Your task to perform on an android device: Open calendar and show me the second week of next month Image 0: 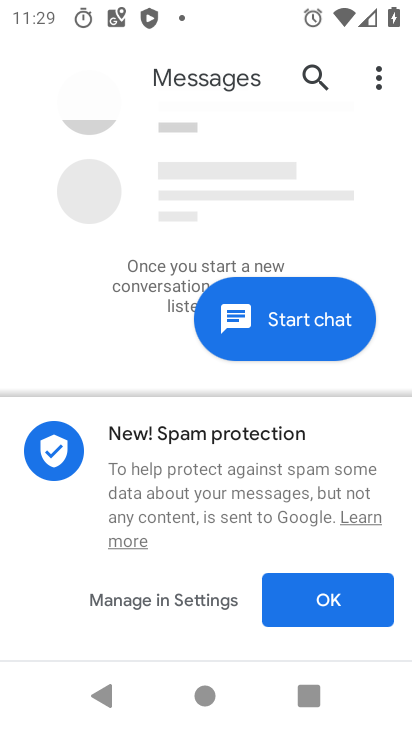
Step 0: press home button
Your task to perform on an android device: Open calendar and show me the second week of next month Image 1: 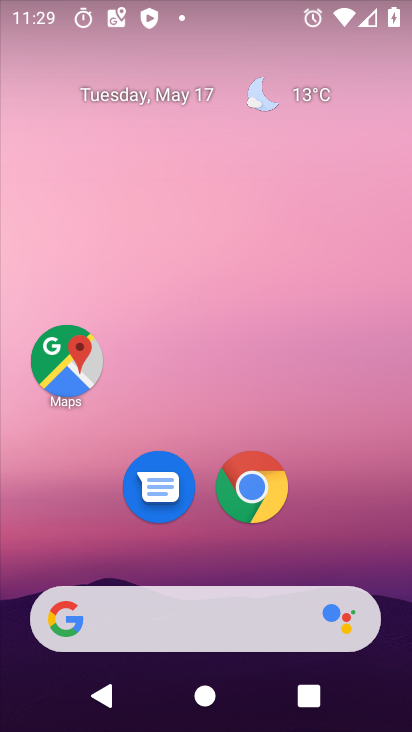
Step 1: drag from (235, 725) to (229, 129)
Your task to perform on an android device: Open calendar and show me the second week of next month Image 2: 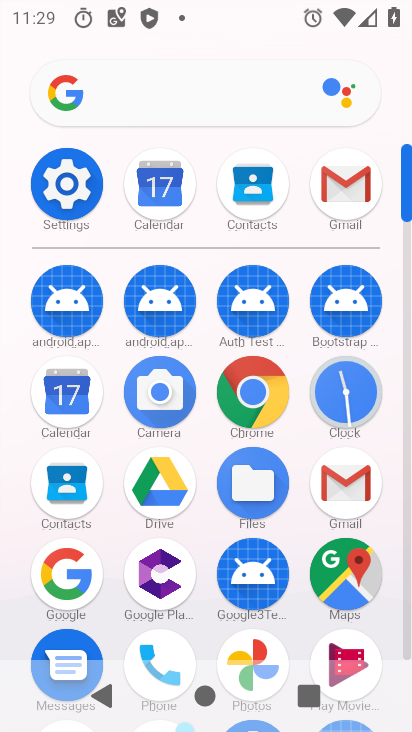
Step 2: click (63, 390)
Your task to perform on an android device: Open calendar and show me the second week of next month Image 3: 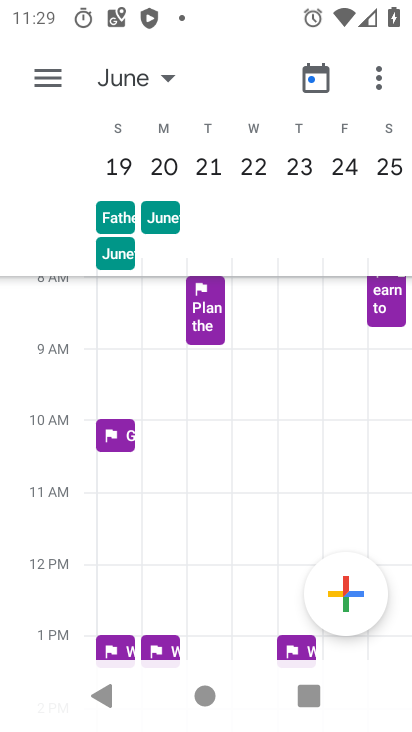
Step 3: click (143, 76)
Your task to perform on an android device: Open calendar and show me the second week of next month Image 4: 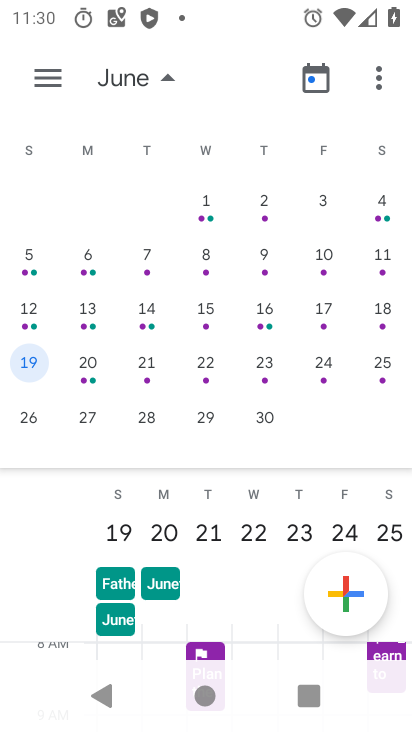
Step 4: click (90, 309)
Your task to perform on an android device: Open calendar and show me the second week of next month Image 5: 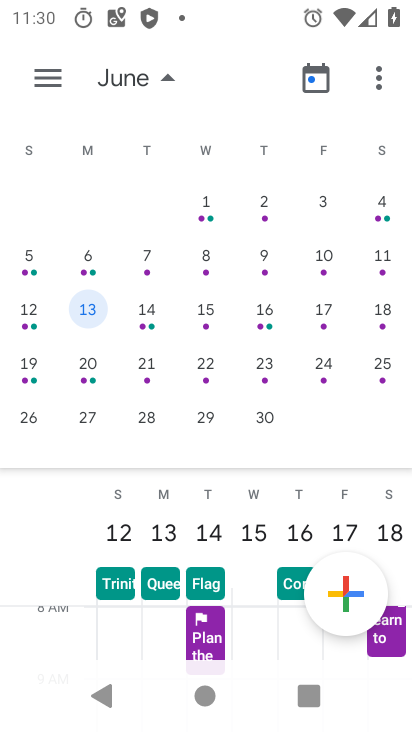
Step 5: click (88, 305)
Your task to perform on an android device: Open calendar and show me the second week of next month Image 6: 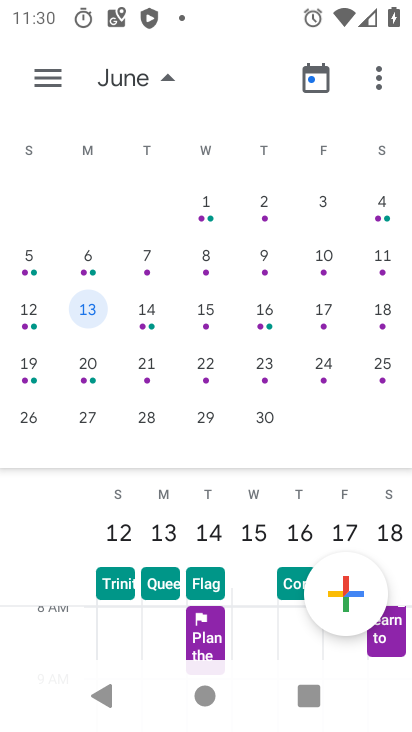
Step 6: click (165, 522)
Your task to perform on an android device: Open calendar and show me the second week of next month Image 7: 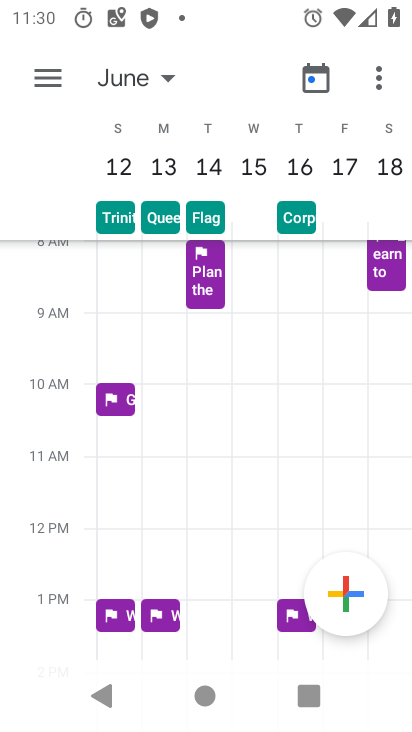
Step 7: task complete